Your task to perform on an android device: Go to notification settings Image 0: 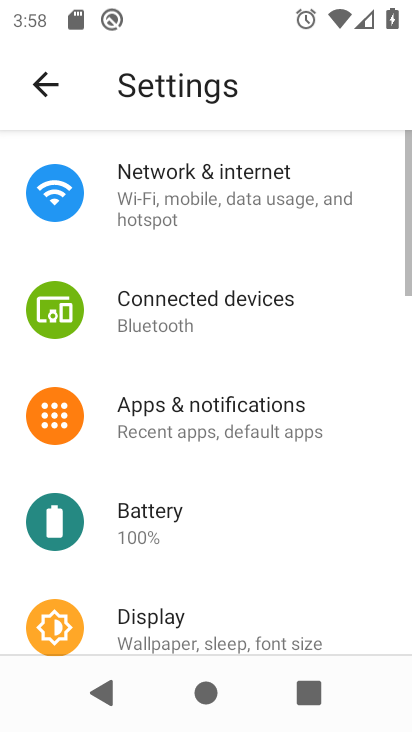
Step 0: click (245, 411)
Your task to perform on an android device: Go to notification settings Image 1: 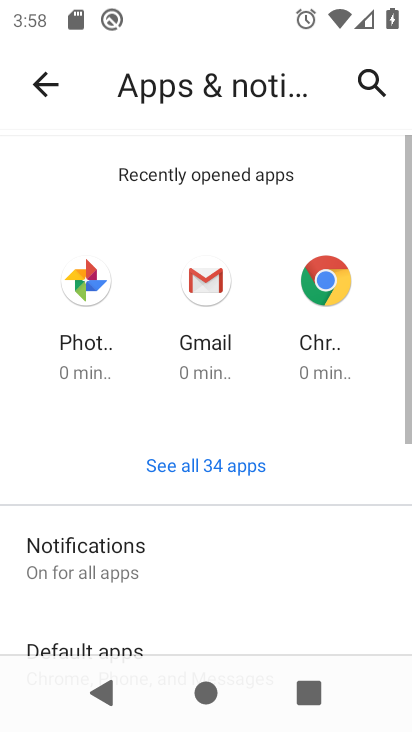
Step 1: task complete